Your task to perform on an android device: toggle airplane mode Image 0: 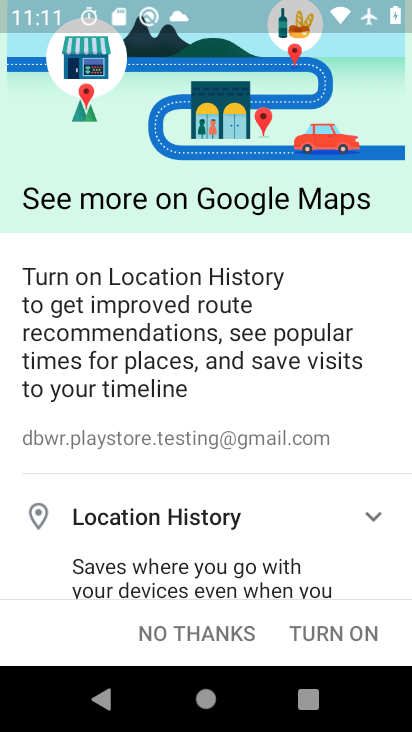
Step 0: press home button
Your task to perform on an android device: toggle airplane mode Image 1: 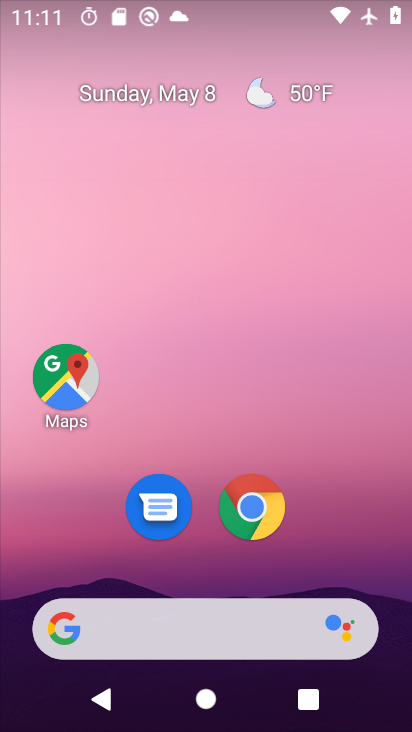
Step 1: drag from (209, 725) to (181, 144)
Your task to perform on an android device: toggle airplane mode Image 2: 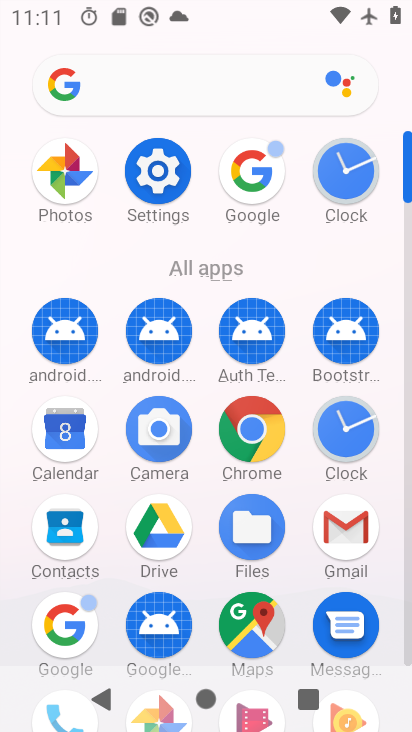
Step 2: click (167, 156)
Your task to perform on an android device: toggle airplane mode Image 3: 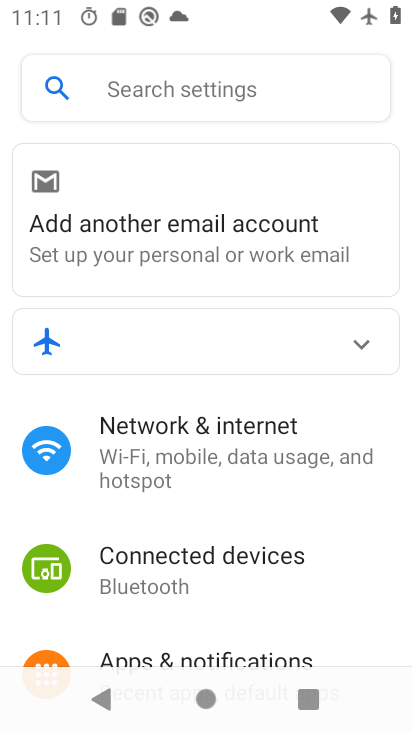
Step 3: drag from (308, 630) to (291, 386)
Your task to perform on an android device: toggle airplane mode Image 4: 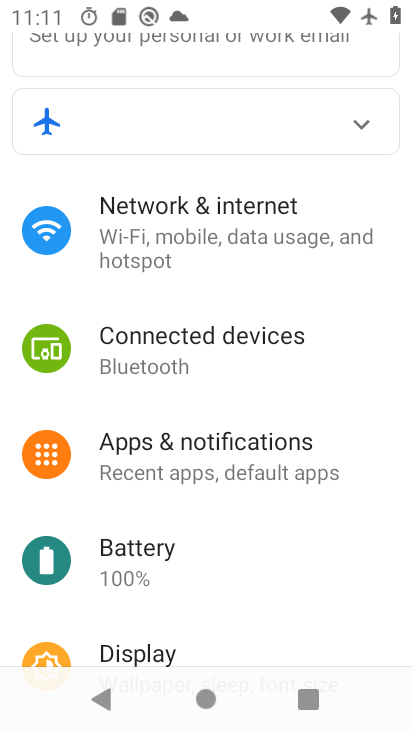
Step 4: drag from (217, 628) to (205, 234)
Your task to perform on an android device: toggle airplane mode Image 5: 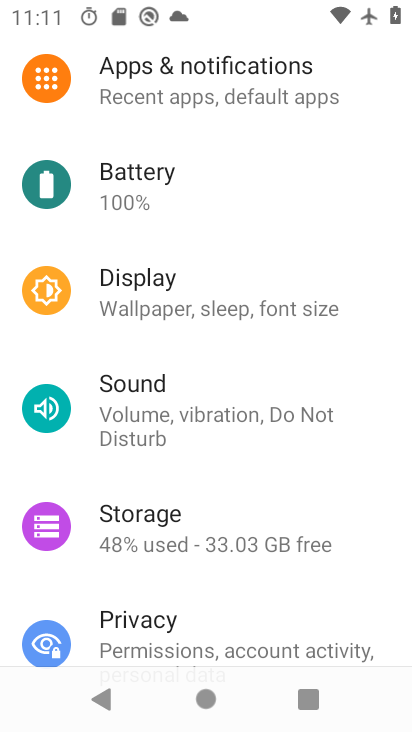
Step 5: drag from (239, 608) to (234, 284)
Your task to perform on an android device: toggle airplane mode Image 6: 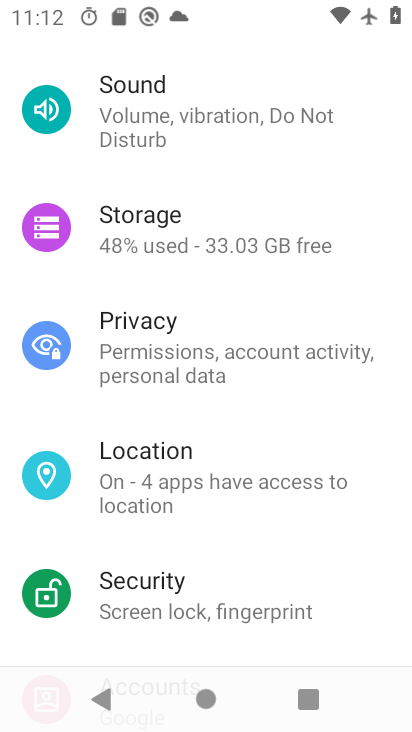
Step 6: drag from (251, 646) to (246, 242)
Your task to perform on an android device: toggle airplane mode Image 7: 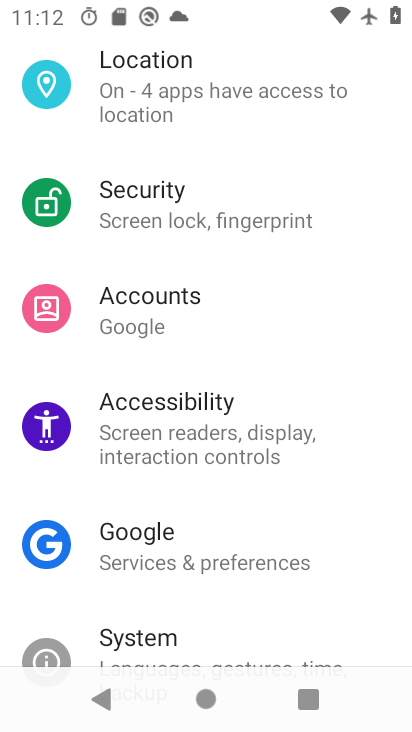
Step 7: drag from (254, 136) to (267, 457)
Your task to perform on an android device: toggle airplane mode Image 8: 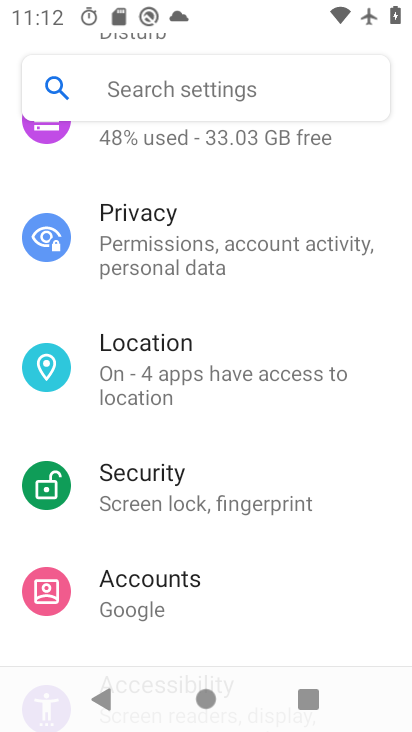
Step 8: drag from (280, 167) to (279, 585)
Your task to perform on an android device: toggle airplane mode Image 9: 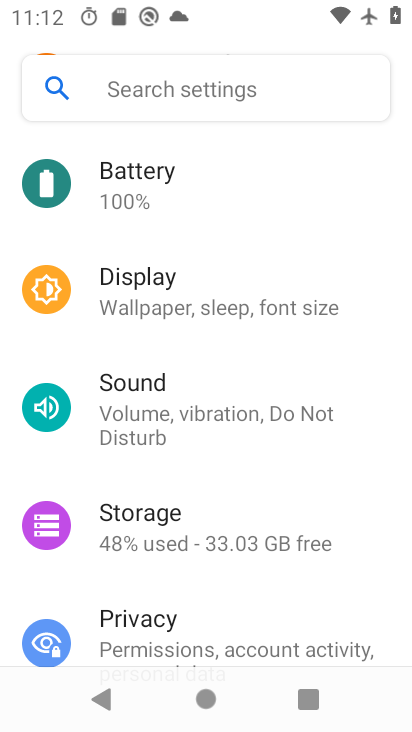
Step 9: drag from (272, 192) to (287, 572)
Your task to perform on an android device: toggle airplane mode Image 10: 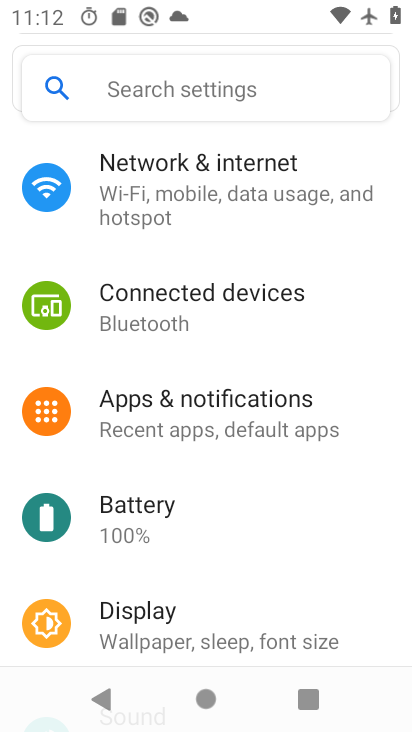
Step 10: click (182, 188)
Your task to perform on an android device: toggle airplane mode Image 11: 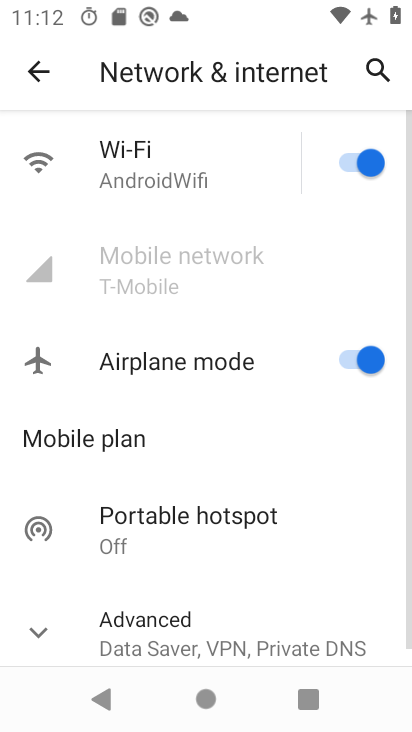
Step 11: click (348, 361)
Your task to perform on an android device: toggle airplane mode Image 12: 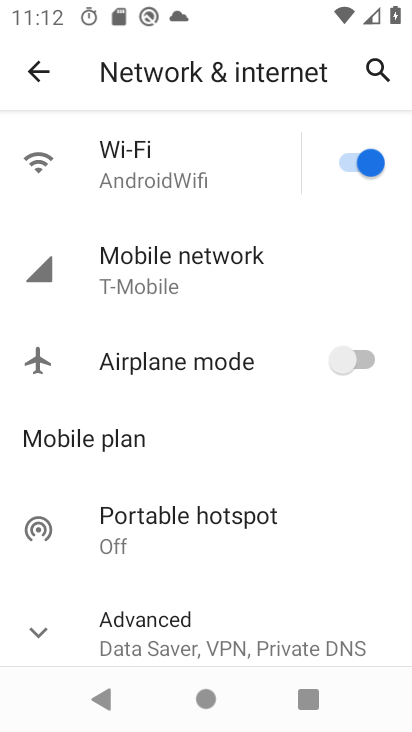
Step 12: task complete